Your task to perform on an android device: toggle wifi Image 0: 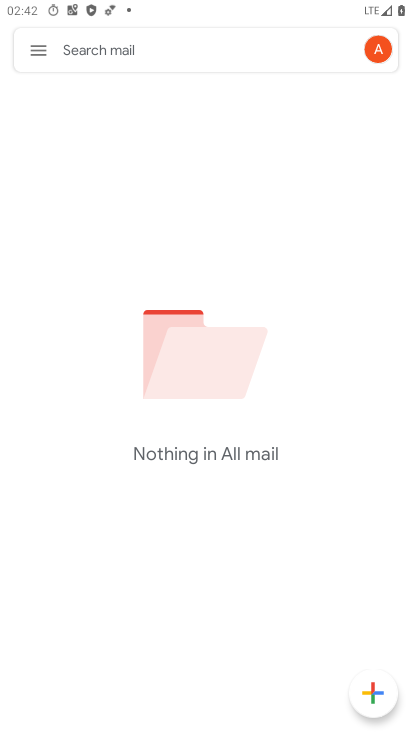
Step 0: drag from (271, 19) to (306, 434)
Your task to perform on an android device: toggle wifi Image 1: 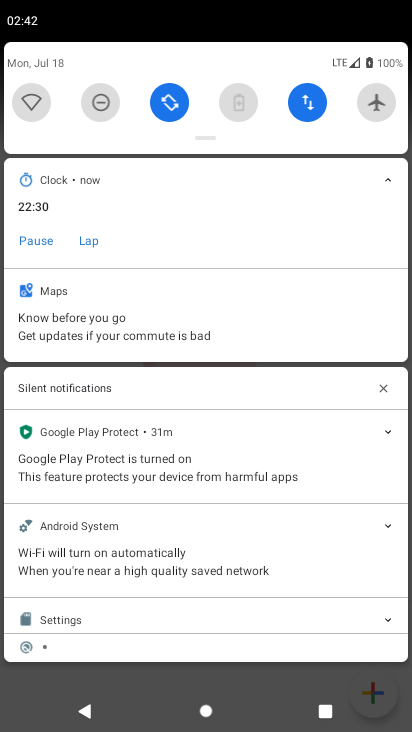
Step 1: click (19, 108)
Your task to perform on an android device: toggle wifi Image 2: 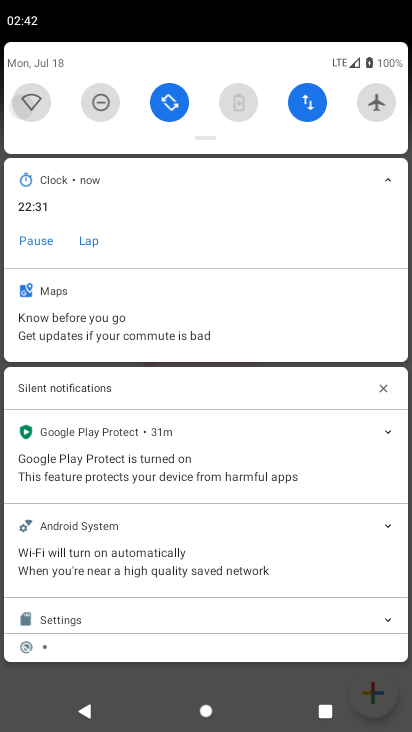
Step 2: click (19, 108)
Your task to perform on an android device: toggle wifi Image 3: 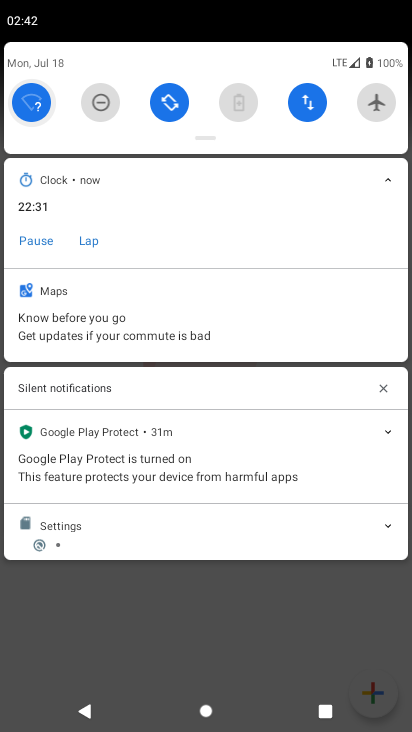
Step 3: click (19, 108)
Your task to perform on an android device: toggle wifi Image 4: 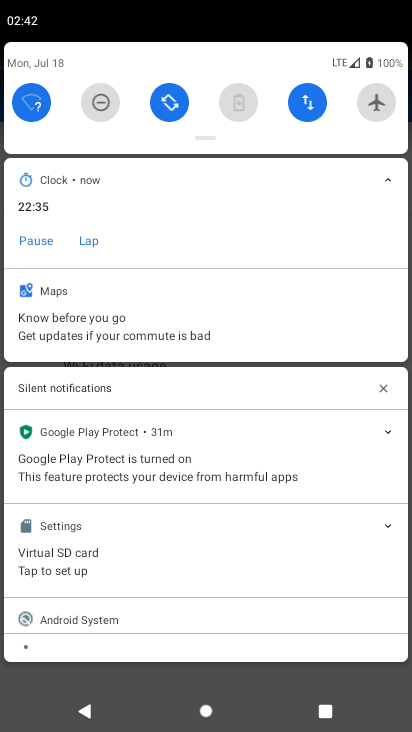
Step 4: task complete